Your task to perform on an android device: Go to privacy settings Image 0: 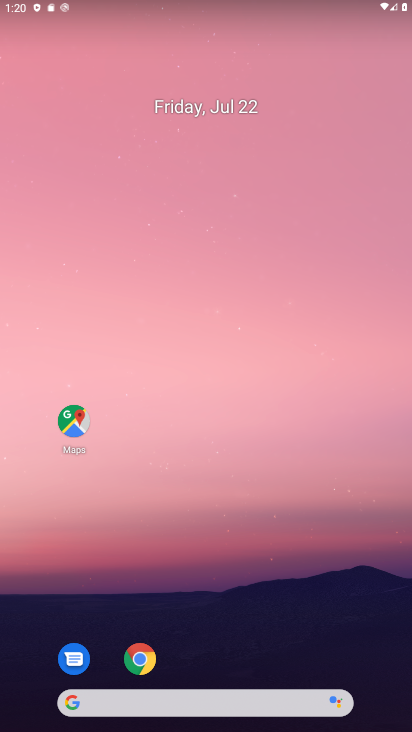
Step 0: drag from (253, 646) to (107, 254)
Your task to perform on an android device: Go to privacy settings Image 1: 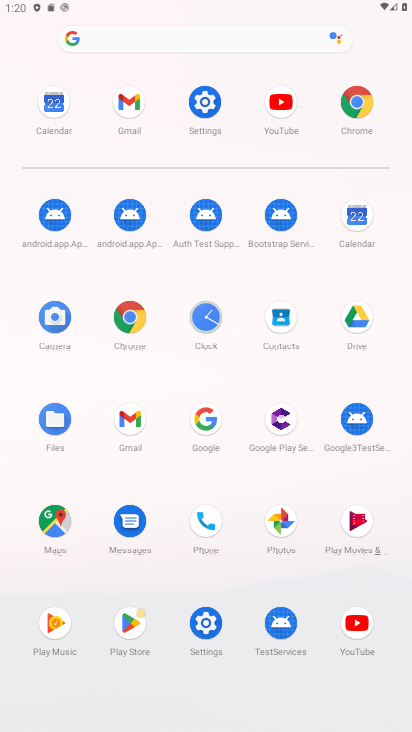
Step 1: click (195, 100)
Your task to perform on an android device: Go to privacy settings Image 2: 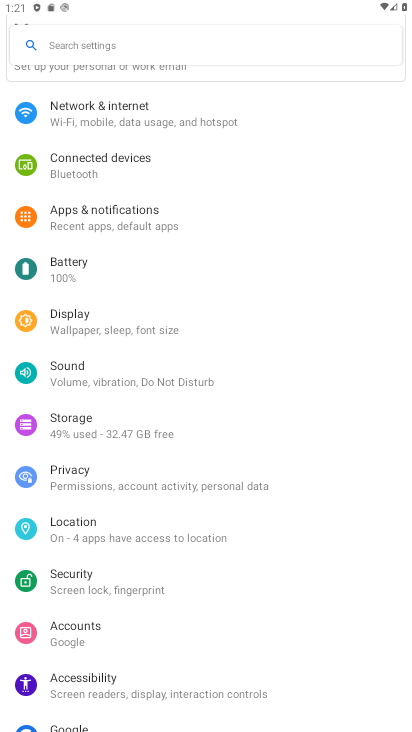
Step 2: click (97, 495)
Your task to perform on an android device: Go to privacy settings Image 3: 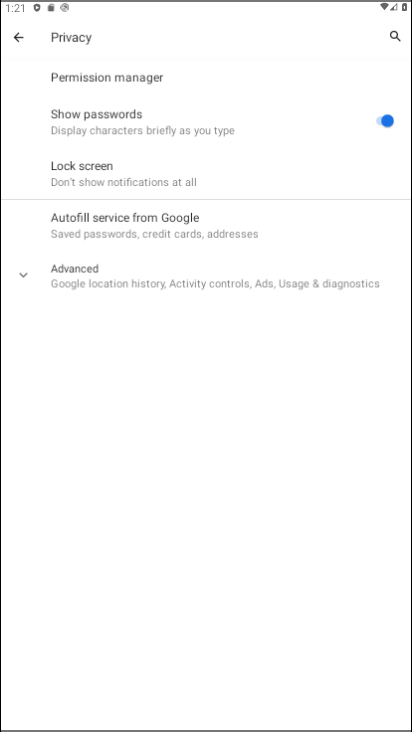
Step 3: task complete